Your task to perform on an android device: Open Reddit.com Image 0: 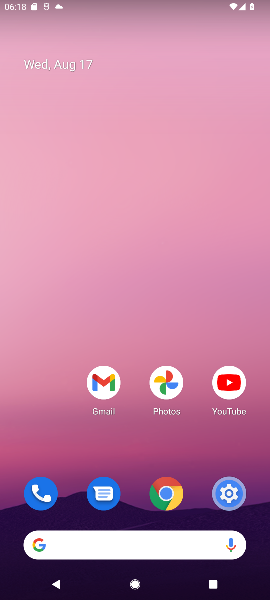
Step 0: press home button
Your task to perform on an android device: Open Reddit.com Image 1: 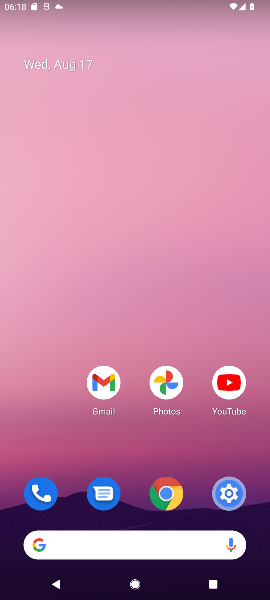
Step 1: drag from (134, 521) to (183, 107)
Your task to perform on an android device: Open Reddit.com Image 2: 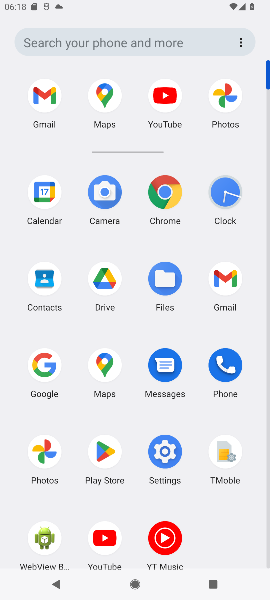
Step 2: click (52, 378)
Your task to perform on an android device: Open Reddit.com Image 3: 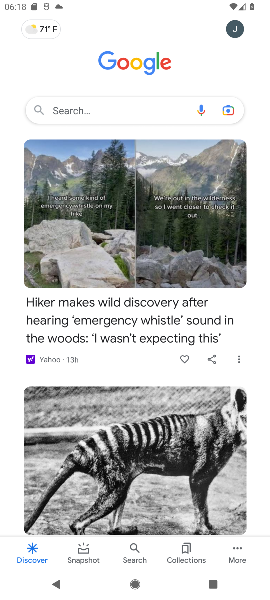
Step 3: type "Reddit.com"
Your task to perform on an android device: Open Reddit.com Image 4: 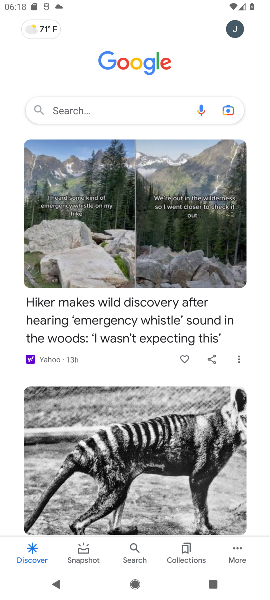
Step 4: click (129, 109)
Your task to perform on an android device: Open Reddit.com Image 5: 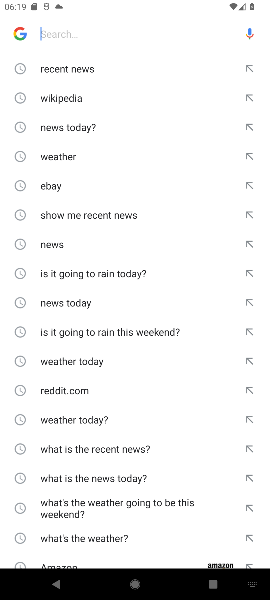
Step 5: type "Reddit.com"
Your task to perform on an android device: Open Reddit.com Image 6: 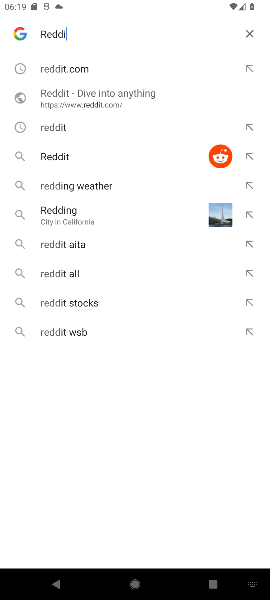
Step 6: press enter
Your task to perform on an android device: Open Reddit.com Image 7: 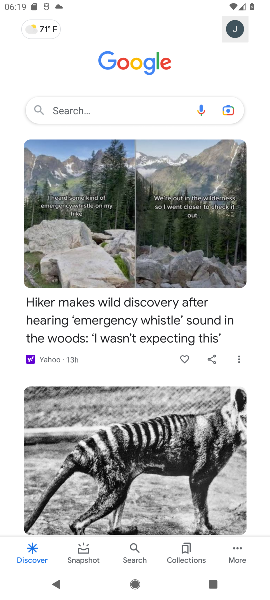
Step 7: task complete